Your task to perform on an android device: turn on notifications settings in the gmail app Image 0: 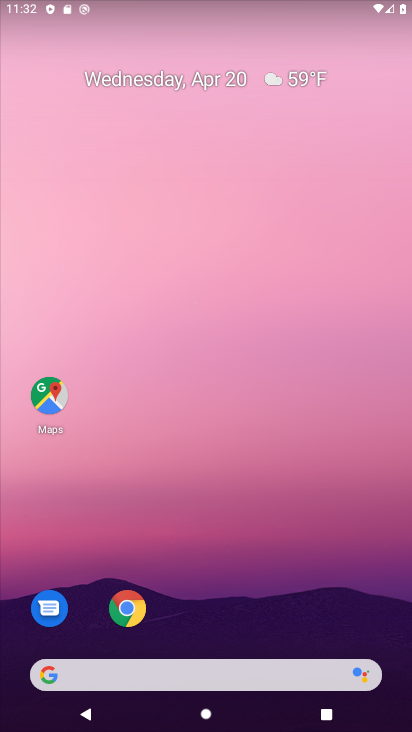
Step 0: drag from (298, 493) to (355, 93)
Your task to perform on an android device: turn on notifications settings in the gmail app Image 1: 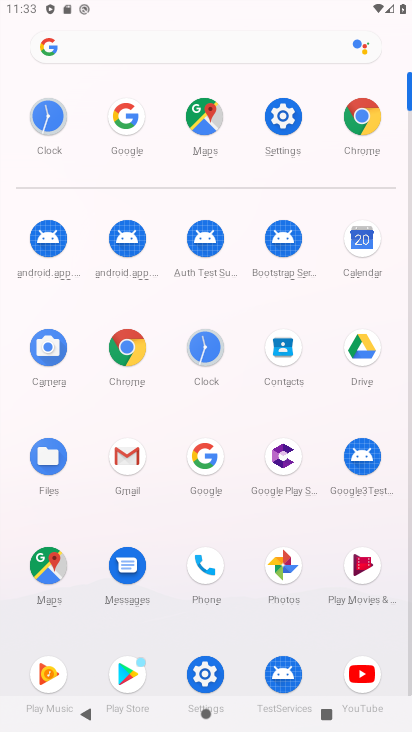
Step 1: click (128, 458)
Your task to perform on an android device: turn on notifications settings in the gmail app Image 2: 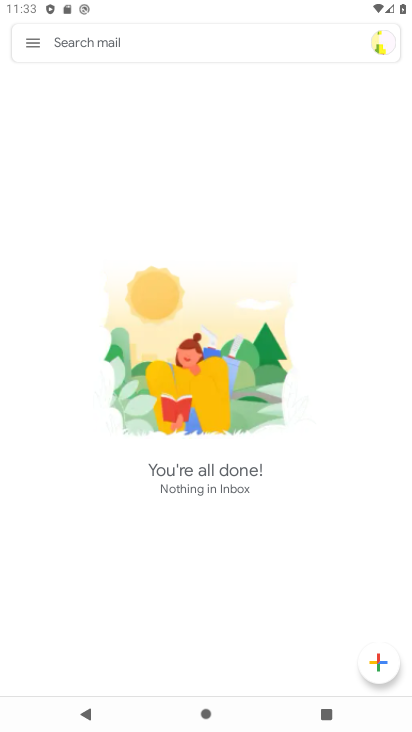
Step 2: click (37, 44)
Your task to perform on an android device: turn on notifications settings in the gmail app Image 3: 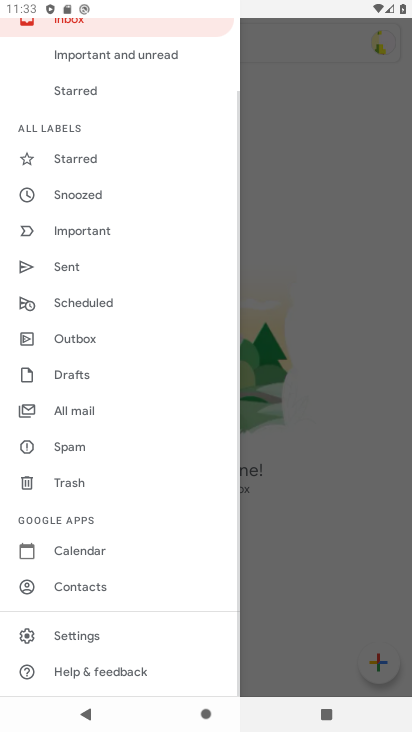
Step 3: click (106, 626)
Your task to perform on an android device: turn on notifications settings in the gmail app Image 4: 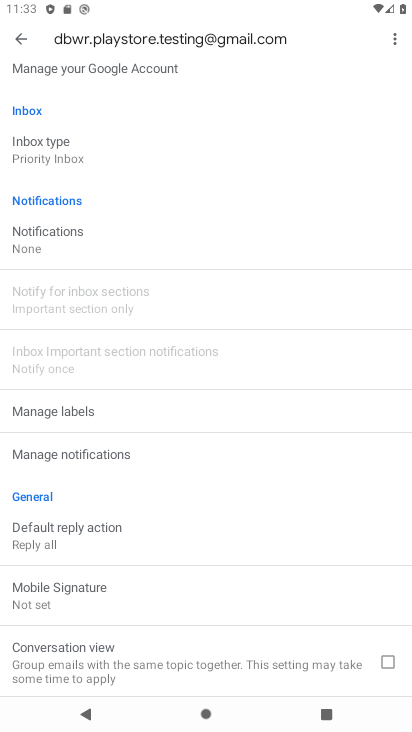
Step 4: click (56, 245)
Your task to perform on an android device: turn on notifications settings in the gmail app Image 5: 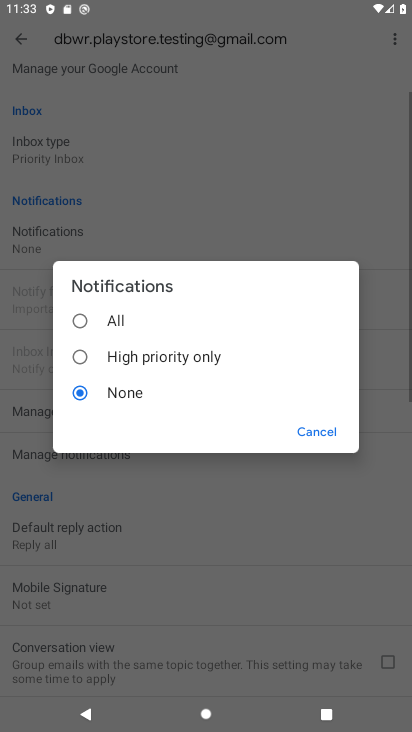
Step 5: click (114, 315)
Your task to perform on an android device: turn on notifications settings in the gmail app Image 6: 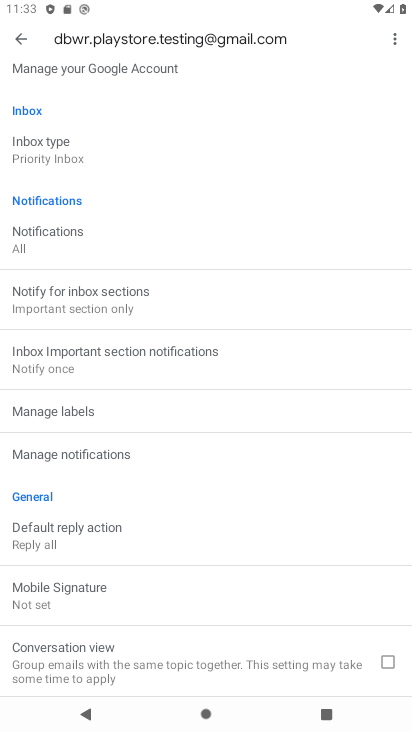
Step 6: task complete